Your task to perform on an android device: turn off location history Image 0: 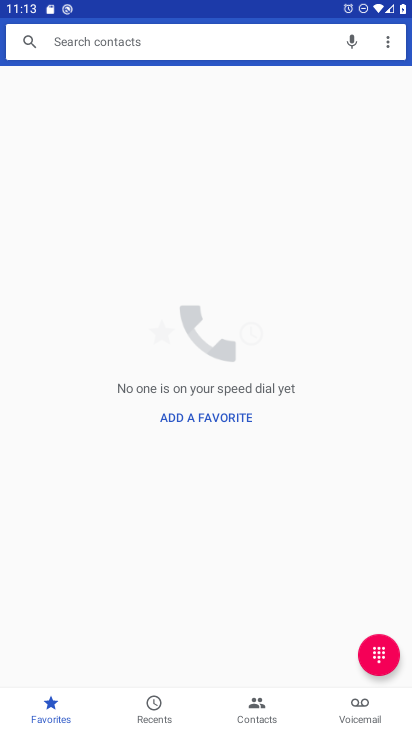
Step 0: press home button
Your task to perform on an android device: turn off location history Image 1: 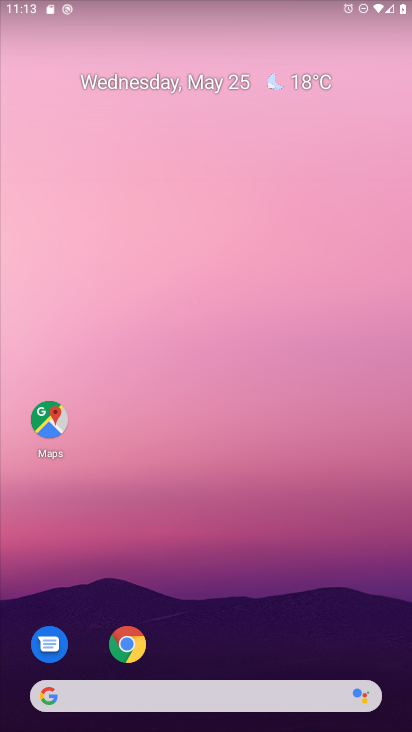
Step 1: drag from (207, 669) to (224, 28)
Your task to perform on an android device: turn off location history Image 2: 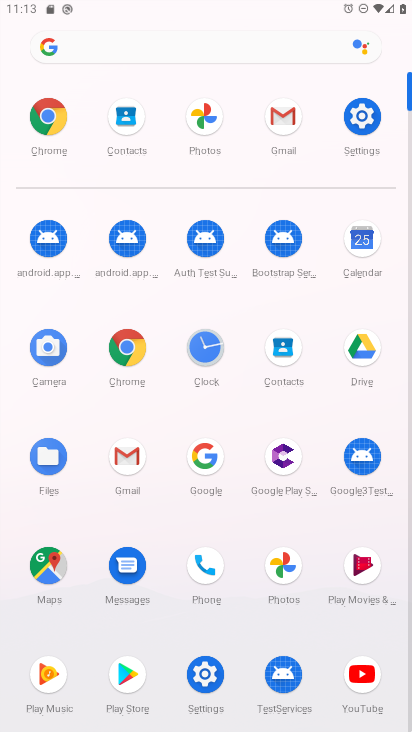
Step 2: click (362, 109)
Your task to perform on an android device: turn off location history Image 3: 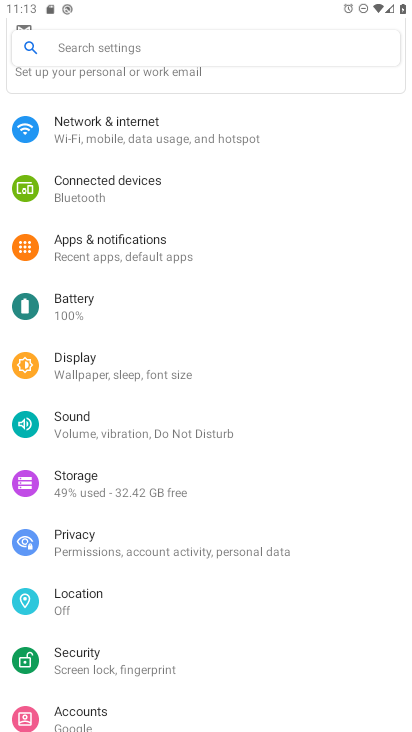
Step 3: click (96, 600)
Your task to perform on an android device: turn off location history Image 4: 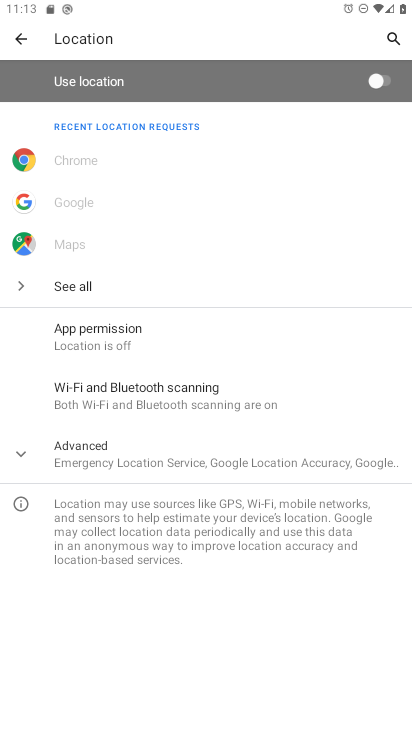
Step 4: click (13, 444)
Your task to perform on an android device: turn off location history Image 5: 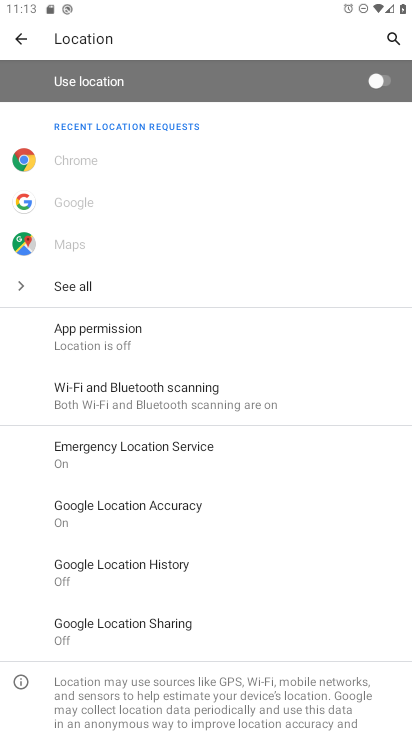
Step 5: click (98, 571)
Your task to perform on an android device: turn off location history Image 6: 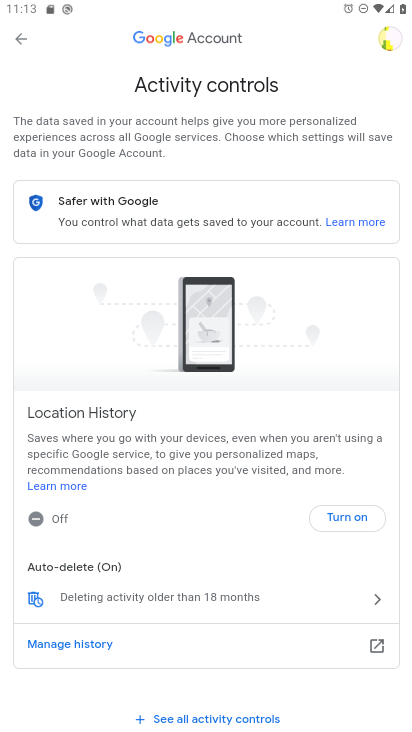
Step 6: task complete